Your task to perform on an android device: change notification settings in the gmail app Image 0: 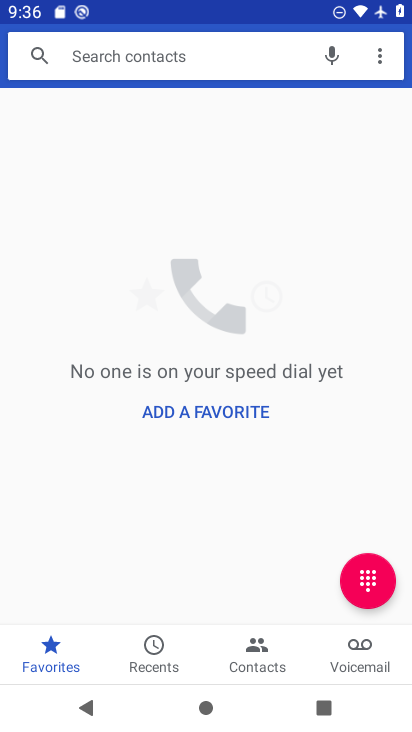
Step 0: press home button
Your task to perform on an android device: change notification settings in the gmail app Image 1: 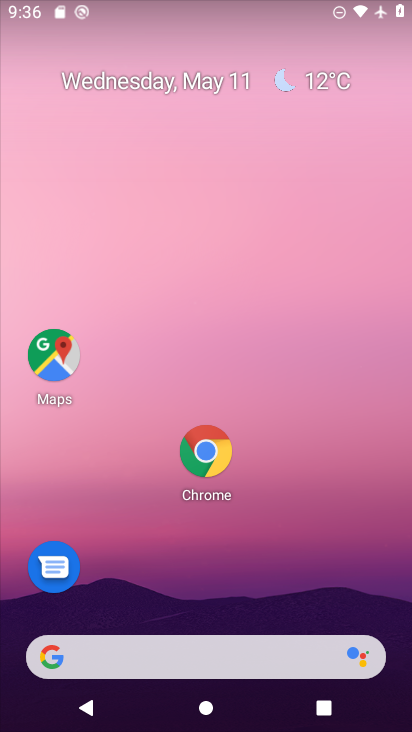
Step 1: drag from (155, 653) to (258, 180)
Your task to perform on an android device: change notification settings in the gmail app Image 2: 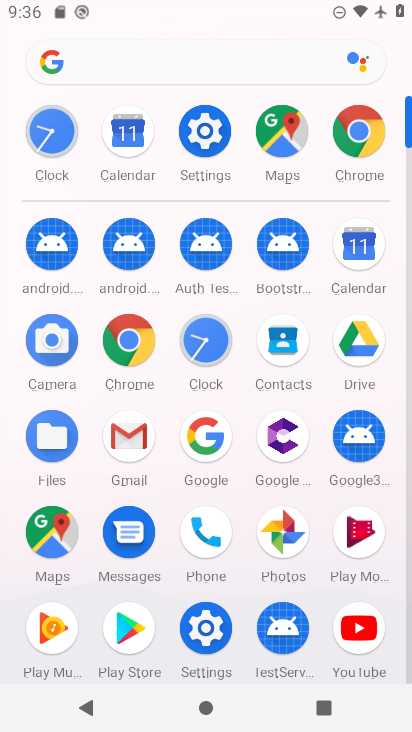
Step 2: click (123, 447)
Your task to perform on an android device: change notification settings in the gmail app Image 3: 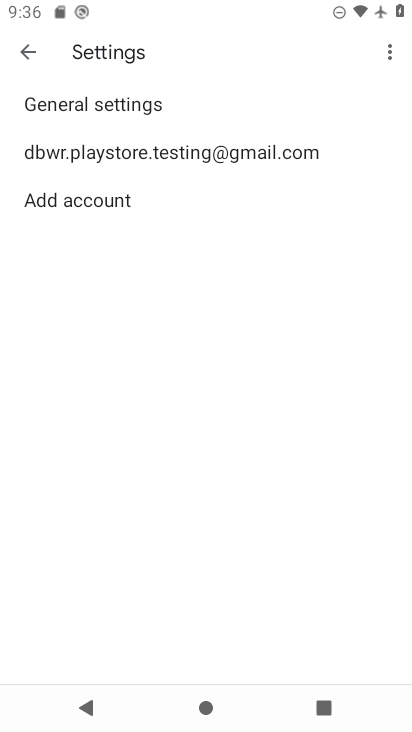
Step 3: click (149, 154)
Your task to perform on an android device: change notification settings in the gmail app Image 4: 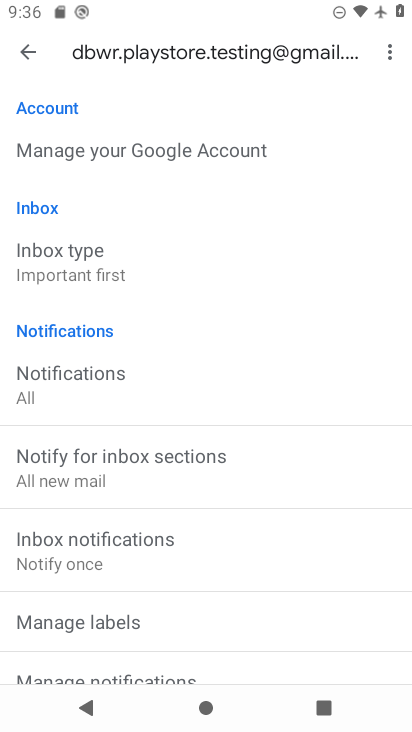
Step 4: click (50, 389)
Your task to perform on an android device: change notification settings in the gmail app Image 5: 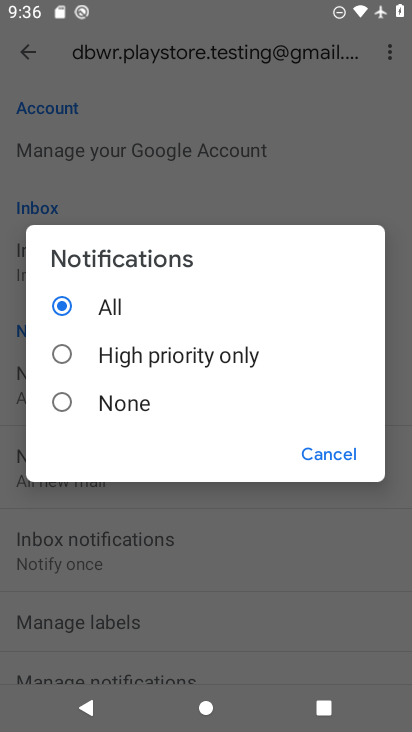
Step 5: click (66, 404)
Your task to perform on an android device: change notification settings in the gmail app Image 6: 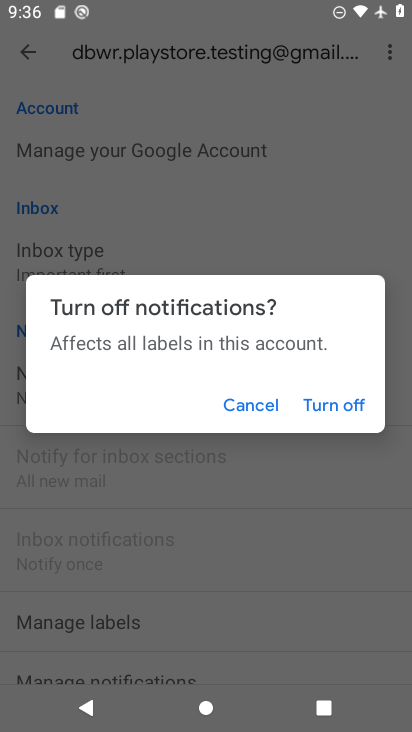
Step 6: click (324, 406)
Your task to perform on an android device: change notification settings in the gmail app Image 7: 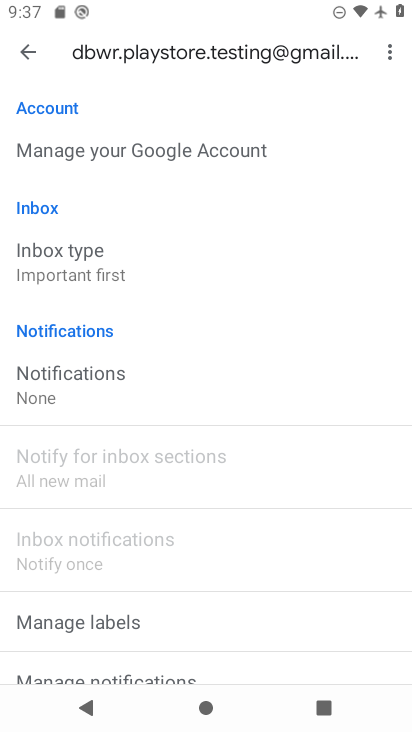
Step 7: task complete